Your task to perform on an android device: Go to eBay Image 0: 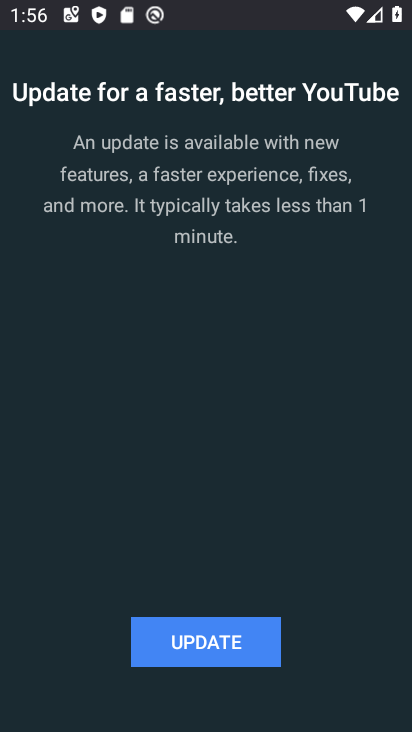
Step 0: press back button
Your task to perform on an android device: Go to eBay Image 1: 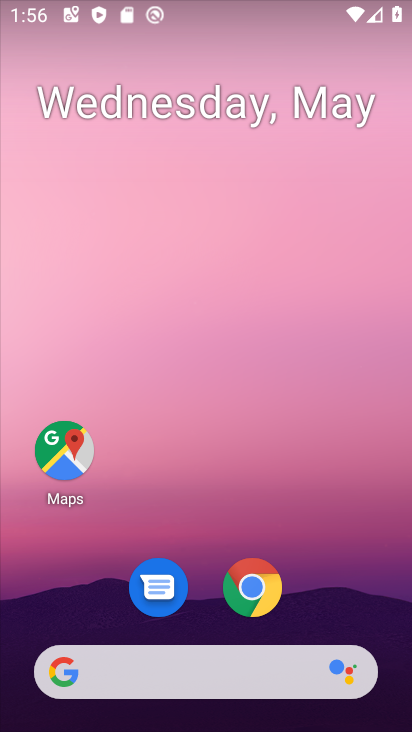
Step 1: click (235, 588)
Your task to perform on an android device: Go to eBay Image 2: 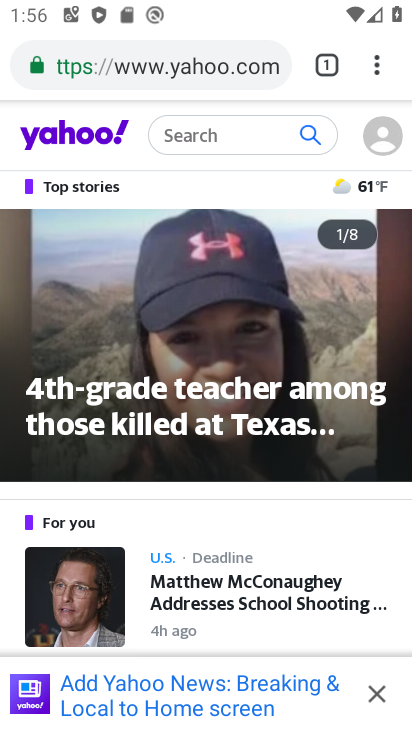
Step 2: click (332, 62)
Your task to perform on an android device: Go to eBay Image 3: 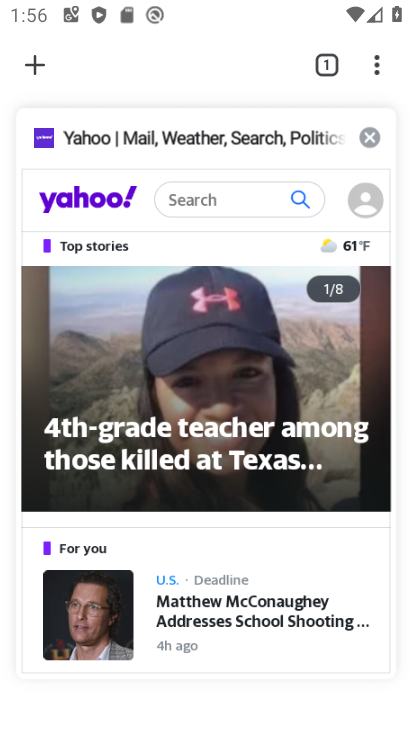
Step 3: click (372, 138)
Your task to perform on an android device: Go to eBay Image 4: 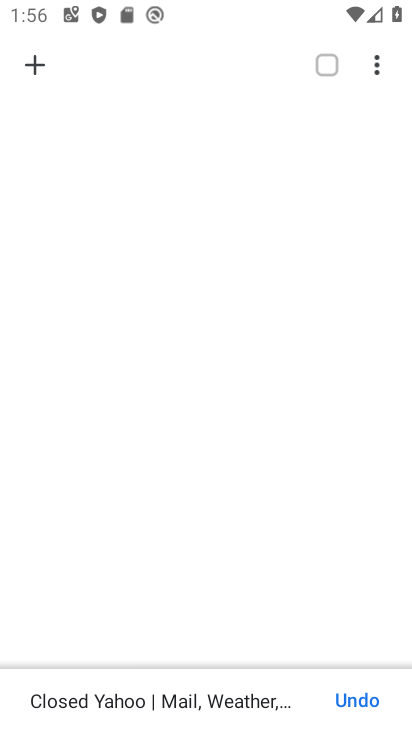
Step 4: click (41, 74)
Your task to perform on an android device: Go to eBay Image 5: 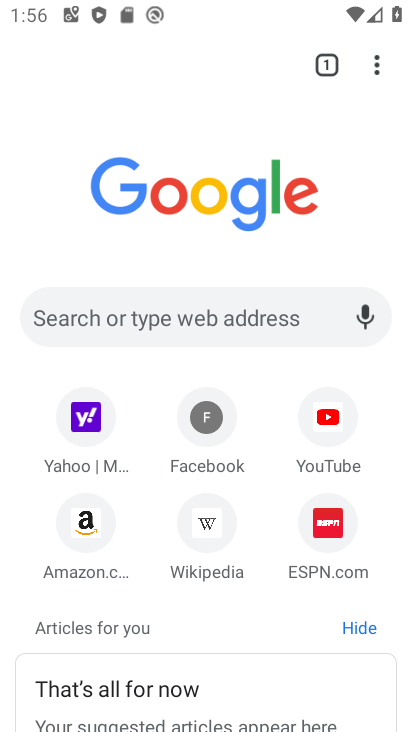
Step 5: click (188, 312)
Your task to perform on an android device: Go to eBay Image 6: 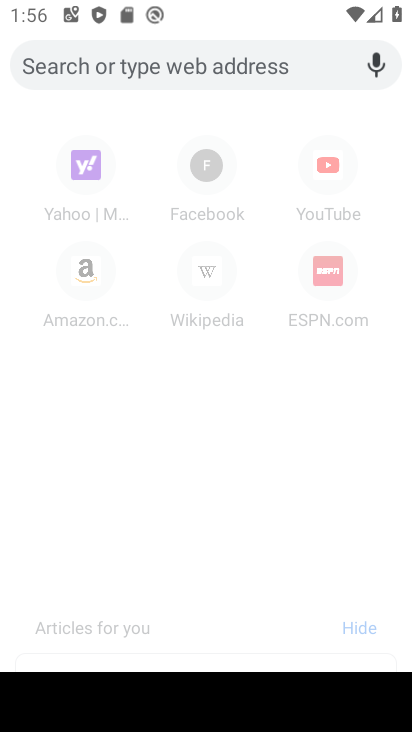
Step 6: type "ebay.com"
Your task to perform on an android device: Go to eBay Image 7: 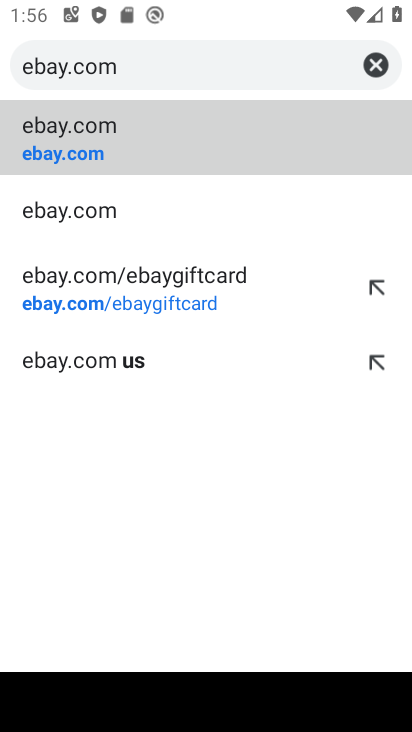
Step 7: click (131, 136)
Your task to perform on an android device: Go to eBay Image 8: 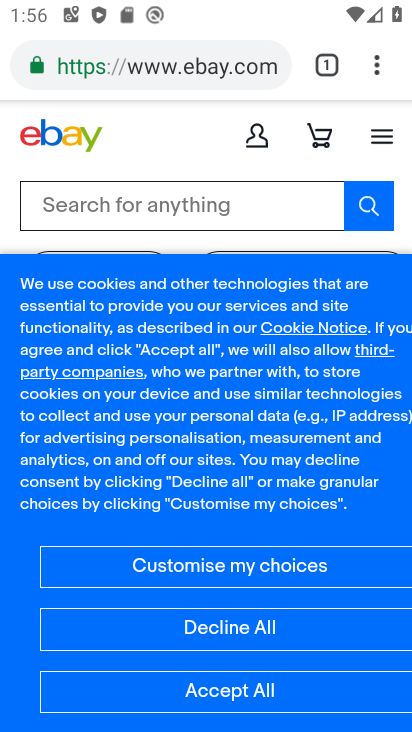
Step 8: task complete